Your task to perform on an android device: visit the assistant section in the google photos Image 0: 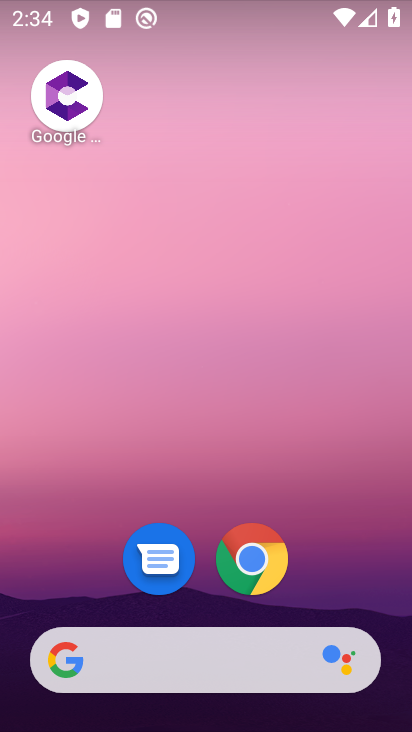
Step 0: drag from (186, 721) to (187, 63)
Your task to perform on an android device: visit the assistant section in the google photos Image 1: 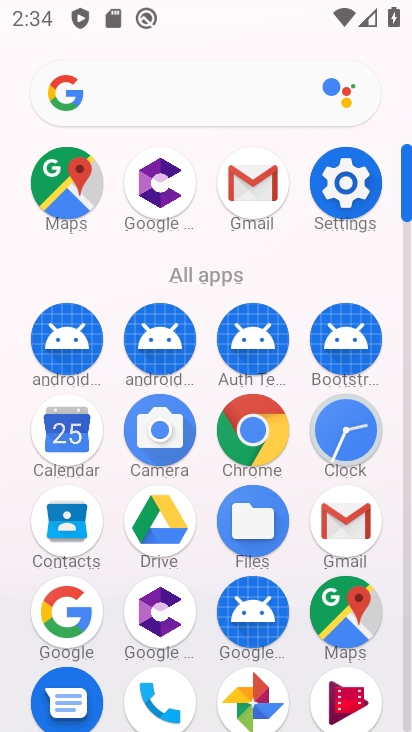
Step 1: click (249, 694)
Your task to perform on an android device: visit the assistant section in the google photos Image 2: 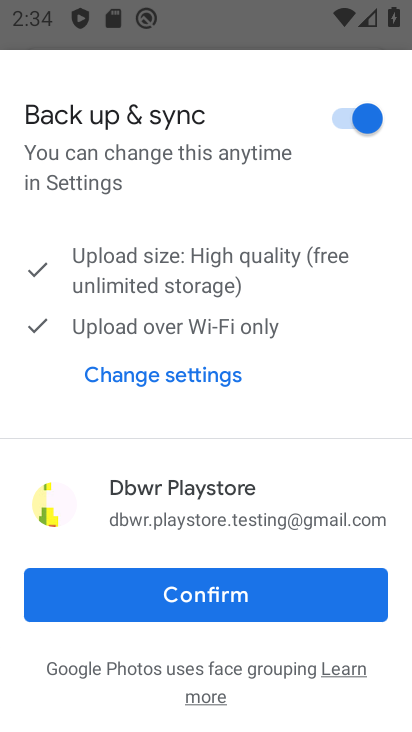
Step 2: click (234, 604)
Your task to perform on an android device: visit the assistant section in the google photos Image 3: 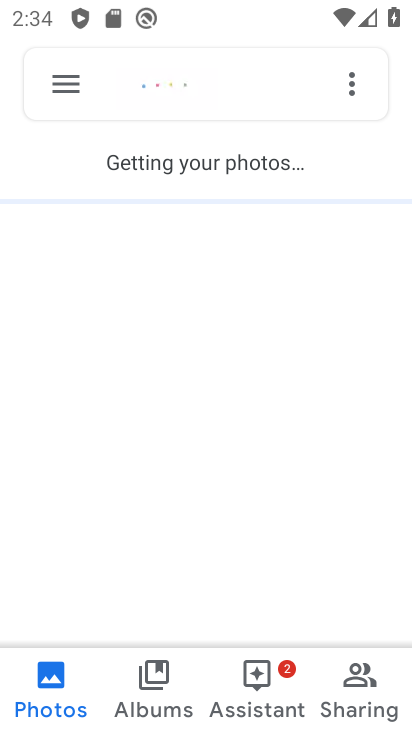
Step 3: click (251, 690)
Your task to perform on an android device: visit the assistant section in the google photos Image 4: 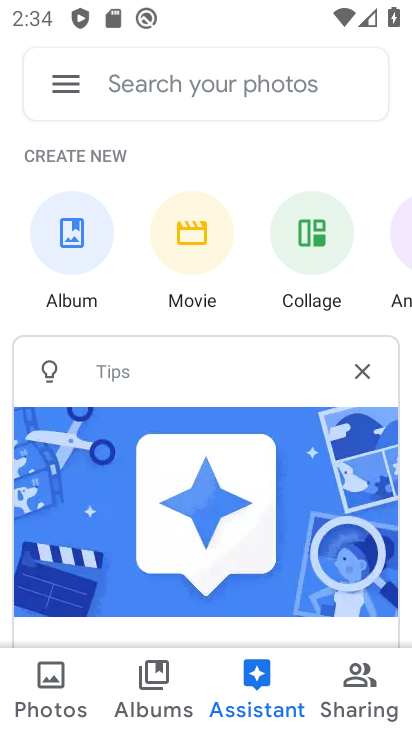
Step 4: task complete